Your task to perform on an android device: Go to Yahoo.com Image 0: 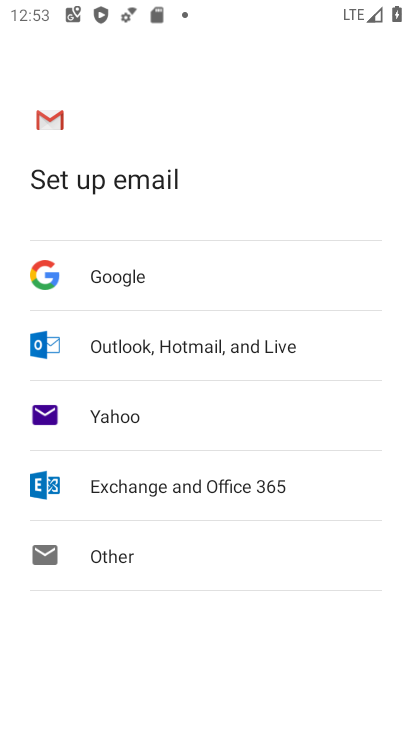
Step 0: press home button
Your task to perform on an android device: Go to Yahoo.com Image 1: 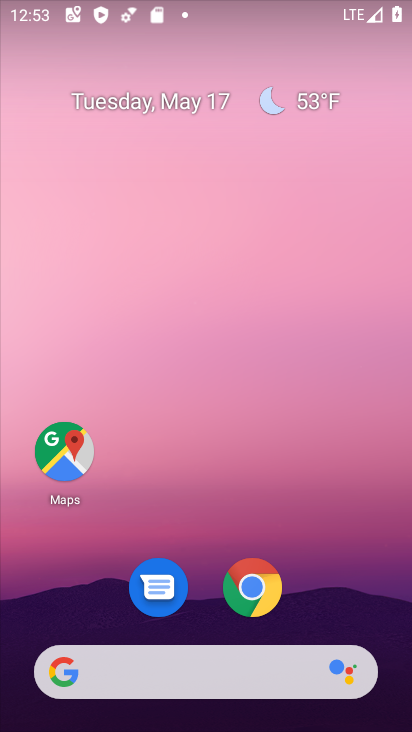
Step 1: click (271, 597)
Your task to perform on an android device: Go to Yahoo.com Image 2: 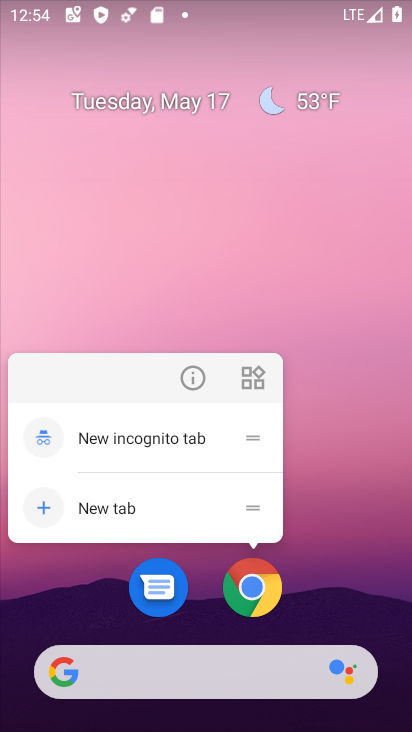
Step 2: click (246, 597)
Your task to perform on an android device: Go to Yahoo.com Image 3: 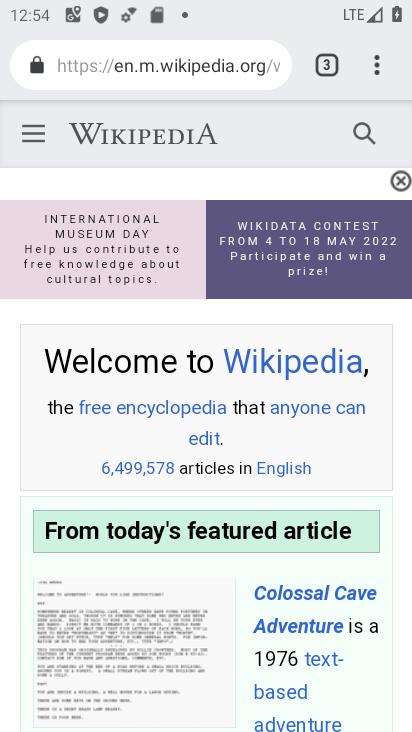
Step 3: click (314, 65)
Your task to perform on an android device: Go to Yahoo.com Image 4: 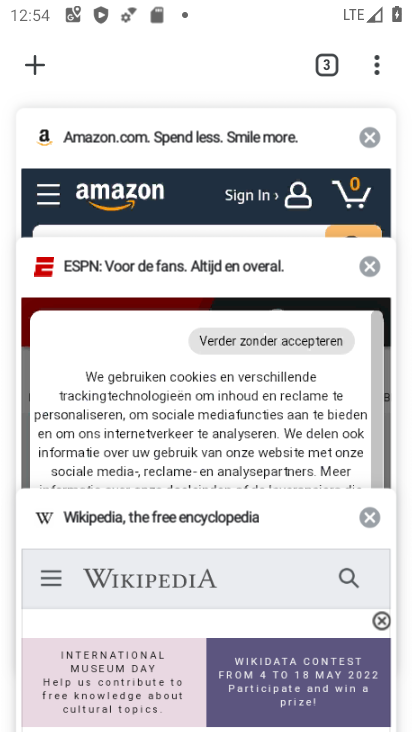
Step 4: click (43, 59)
Your task to perform on an android device: Go to Yahoo.com Image 5: 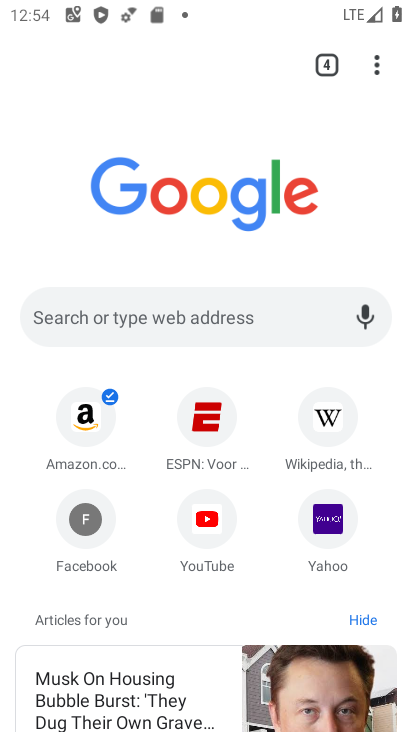
Step 5: click (332, 511)
Your task to perform on an android device: Go to Yahoo.com Image 6: 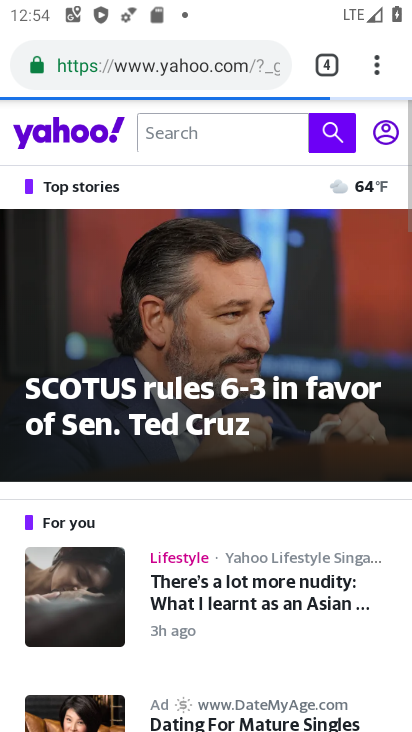
Step 6: task complete